Your task to perform on an android device: turn pop-ups on in chrome Image 0: 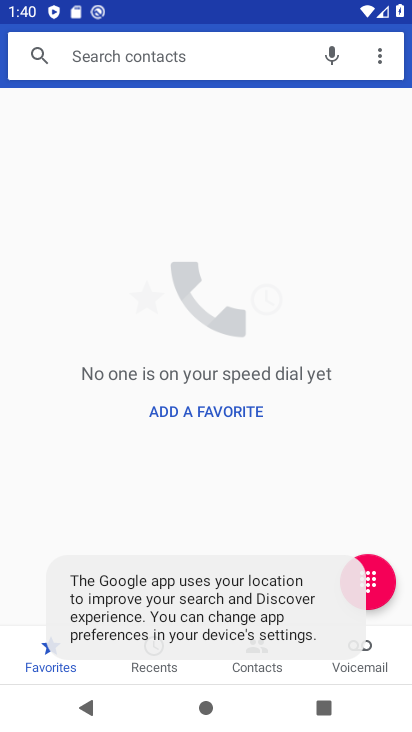
Step 0: drag from (50, 349) to (400, 187)
Your task to perform on an android device: turn pop-ups on in chrome Image 1: 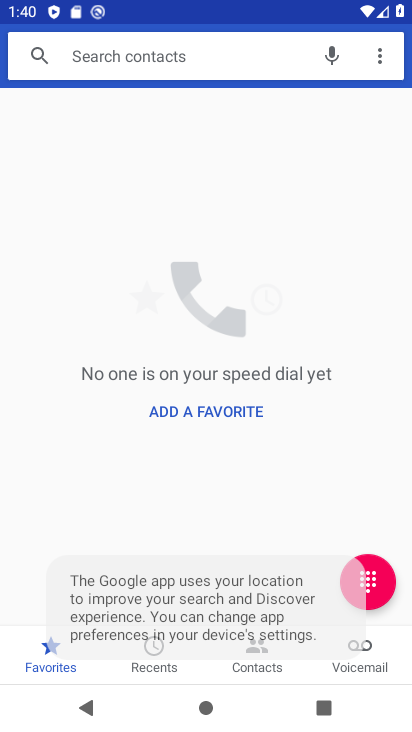
Step 1: press home button
Your task to perform on an android device: turn pop-ups on in chrome Image 2: 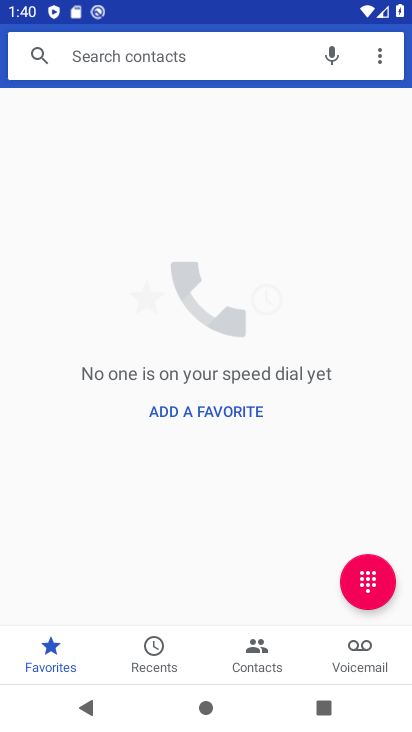
Step 2: drag from (400, 187) to (345, 9)
Your task to perform on an android device: turn pop-ups on in chrome Image 3: 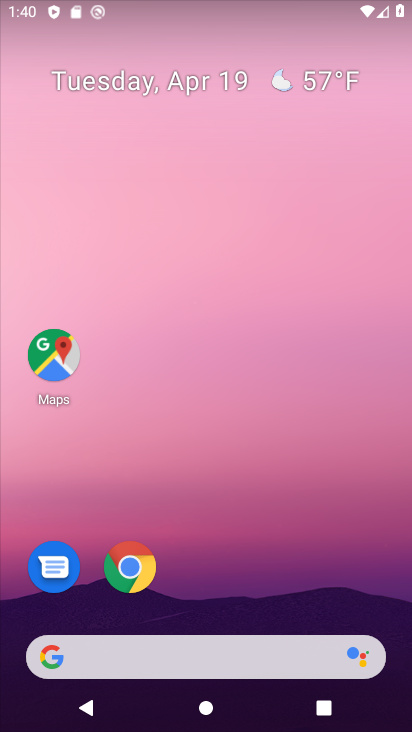
Step 3: click (129, 566)
Your task to perform on an android device: turn pop-ups on in chrome Image 4: 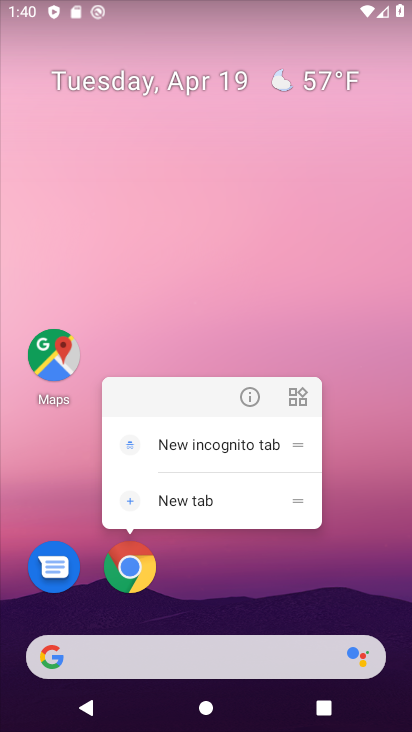
Step 4: click (135, 575)
Your task to perform on an android device: turn pop-ups on in chrome Image 5: 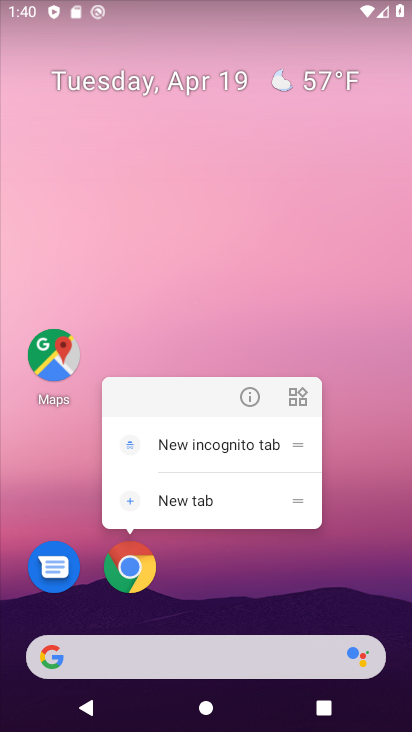
Step 5: click (133, 560)
Your task to perform on an android device: turn pop-ups on in chrome Image 6: 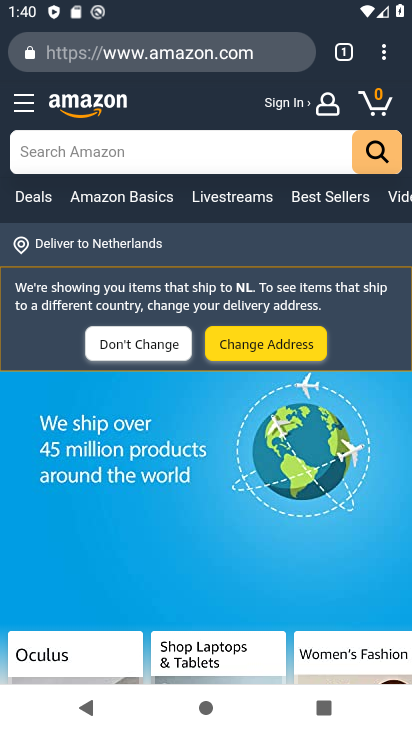
Step 6: click (384, 58)
Your task to perform on an android device: turn pop-ups on in chrome Image 7: 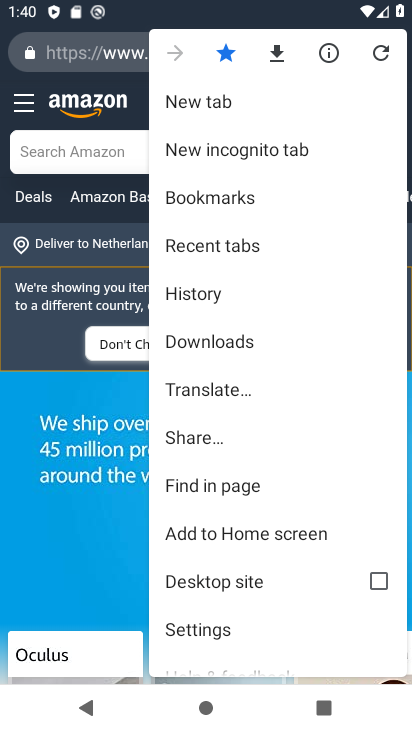
Step 7: click (217, 636)
Your task to perform on an android device: turn pop-ups on in chrome Image 8: 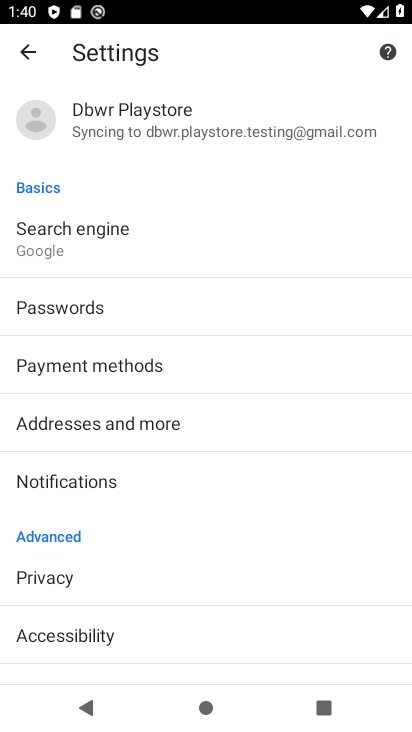
Step 8: drag from (145, 540) to (139, 191)
Your task to perform on an android device: turn pop-ups on in chrome Image 9: 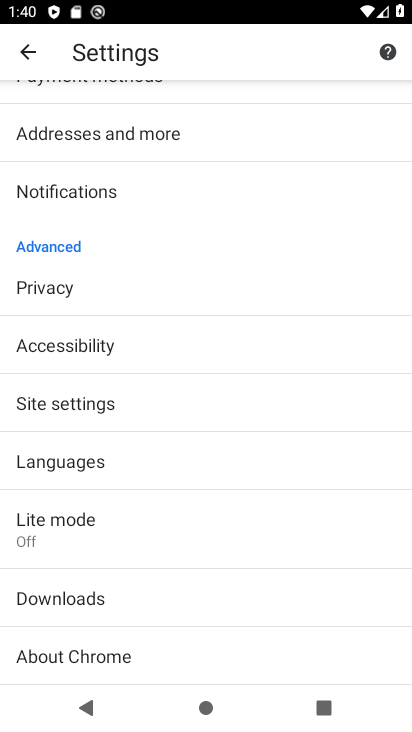
Step 9: drag from (186, 507) to (176, 197)
Your task to perform on an android device: turn pop-ups on in chrome Image 10: 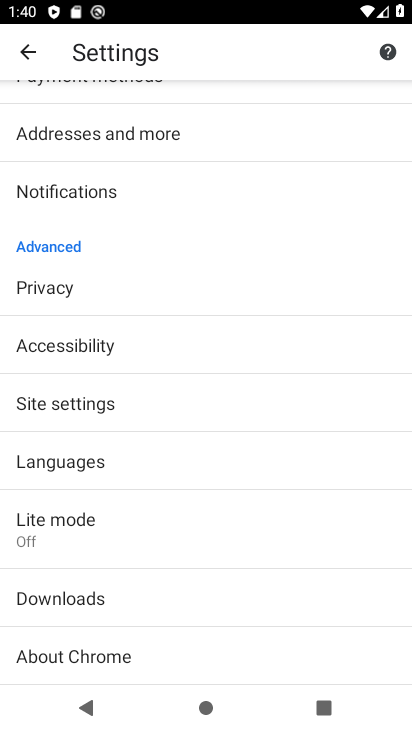
Step 10: click (110, 405)
Your task to perform on an android device: turn pop-ups on in chrome Image 11: 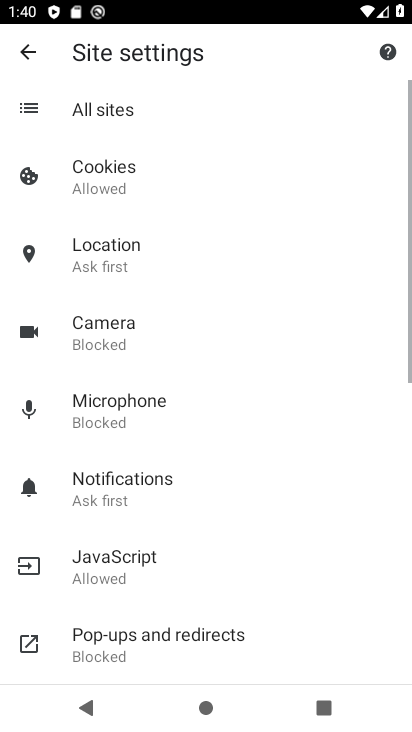
Step 11: drag from (216, 576) to (233, 245)
Your task to perform on an android device: turn pop-ups on in chrome Image 12: 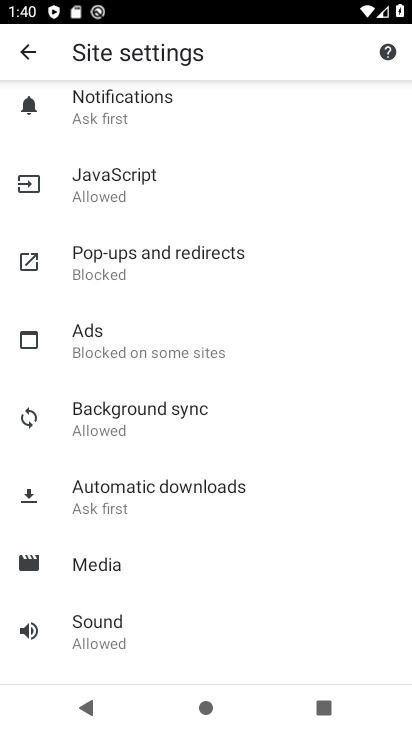
Step 12: click (125, 261)
Your task to perform on an android device: turn pop-ups on in chrome Image 13: 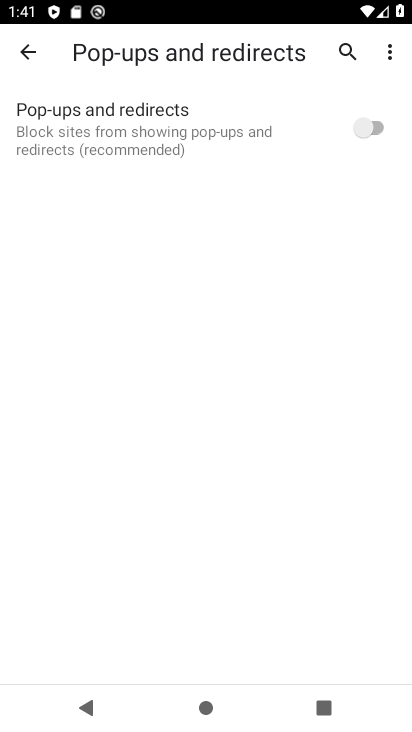
Step 13: click (360, 134)
Your task to perform on an android device: turn pop-ups on in chrome Image 14: 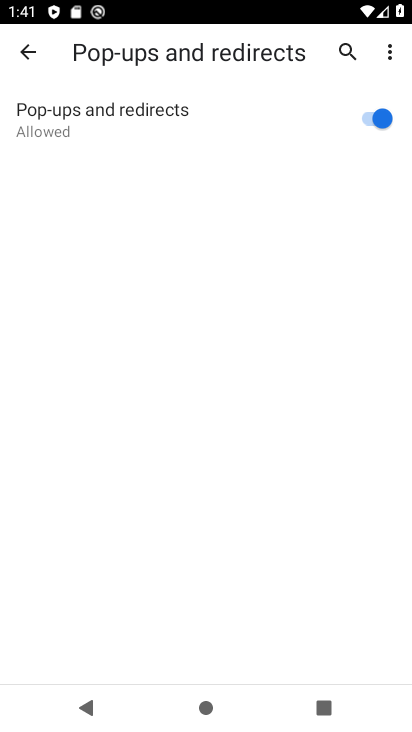
Step 14: task complete